Your task to perform on an android device: Add "macbook pro 15 inch" to the cart on target.com, then select checkout. Image 0: 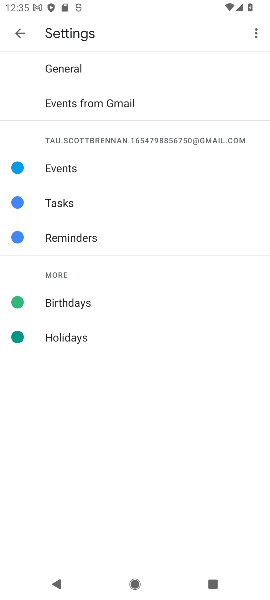
Step 0: press home button
Your task to perform on an android device: Add "macbook pro 15 inch" to the cart on target.com, then select checkout. Image 1: 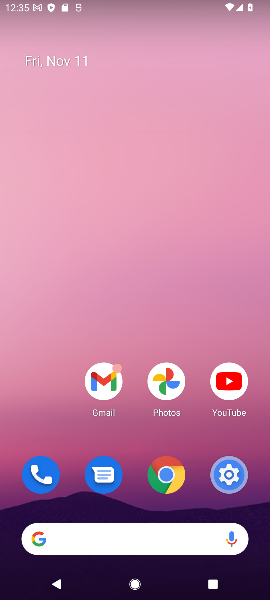
Step 1: drag from (130, 428) to (109, 1)
Your task to perform on an android device: Add "macbook pro 15 inch" to the cart on target.com, then select checkout. Image 2: 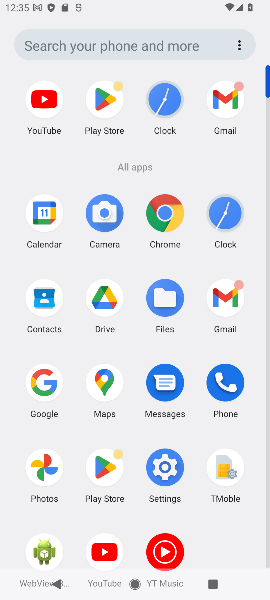
Step 2: click (170, 213)
Your task to perform on an android device: Add "macbook pro 15 inch" to the cart on target.com, then select checkout. Image 3: 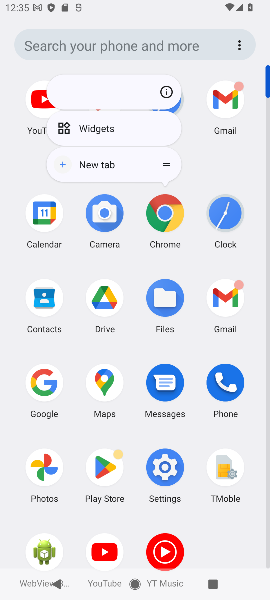
Step 3: click (165, 208)
Your task to perform on an android device: Add "macbook pro 15 inch" to the cart on target.com, then select checkout. Image 4: 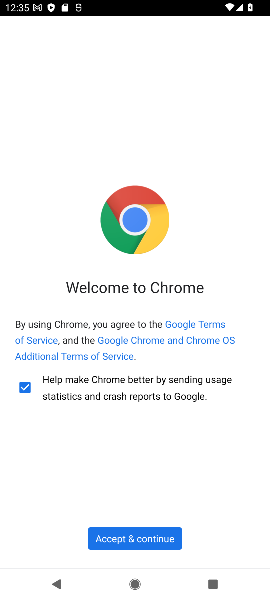
Step 4: click (150, 532)
Your task to perform on an android device: Add "macbook pro 15 inch" to the cart on target.com, then select checkout. Image 5: 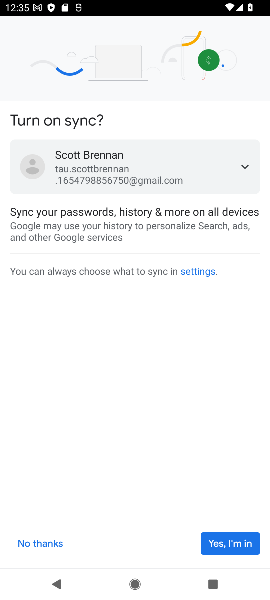
Step 5: click (244, 543)
Your task to perform on an android device: Add "macbook pro 15 inch" to the cart on target.com, then select checkout. Image 6: 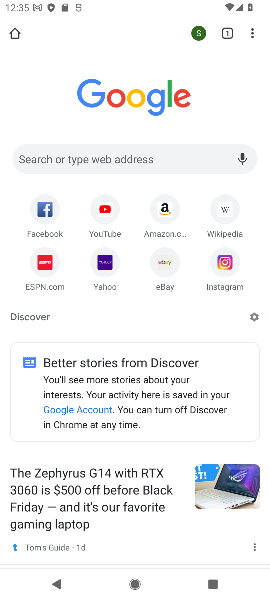
Step 6: click (109, 166)
Your task to perform on an android device: Add "macbook pro 15 inch" to the cart on target.com, then select checkout. Image 7: 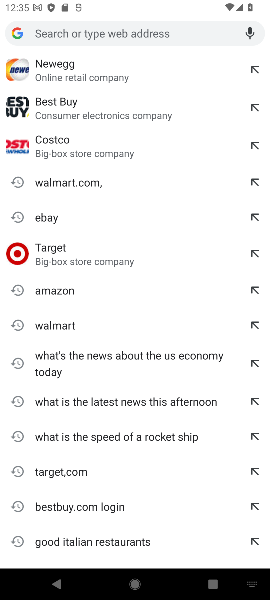
Step 7: type "target.com"
Your task to perform on an android device: Add "macbook pro 15 inch" to the cart on target.com, then select checkout. Image 8: 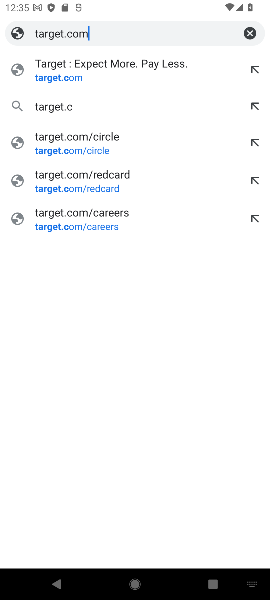
Step 8: press enter
Your task to perform on an android device: Add "macbook pro 15 inch" to the cart on target.com, then select checkout. Image 9: 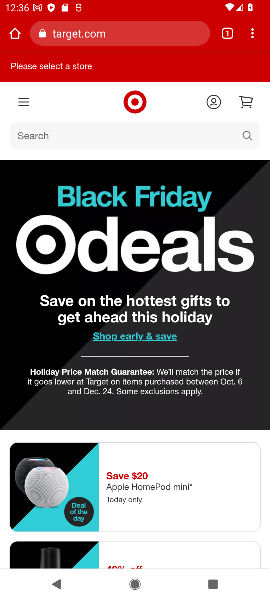
Step 9: click (64, 132)
Your task to perform on an android device: Add "macbook pro 15 inch" to the cart on target.com, then select checkout. Image 10: 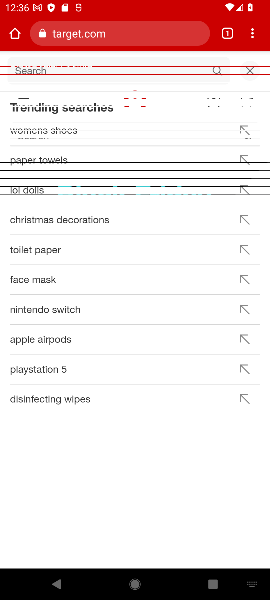
Step 10: type "macbook pro 15 inch"
Your task to perform on an android device: Add "macbook pro 15 inch" to the cart on target.com, then select checkout. Image 11: 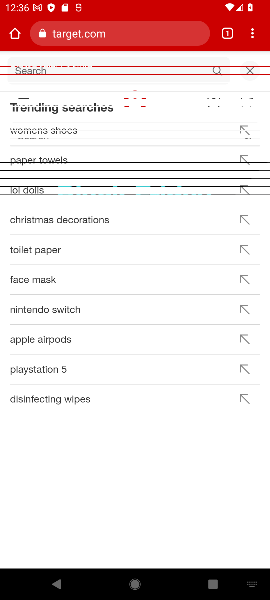
Step 11: press enter
Your task to perform on an android device: Add "macbook pro 15 inch" to the cart on target.com, then select checkout. Image 12: 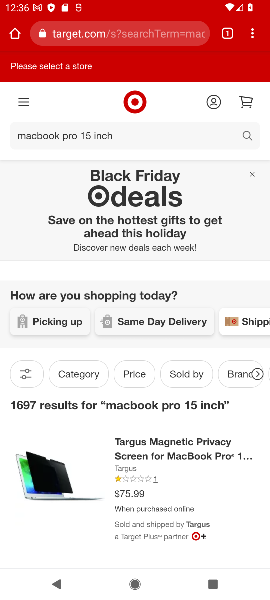
Step 12: drag from (135, 397) to (92, 195)
Your task to perform on an android device: Add "macbook pro 15 inch" to the cart on target.com, then select checkout. Image 13: 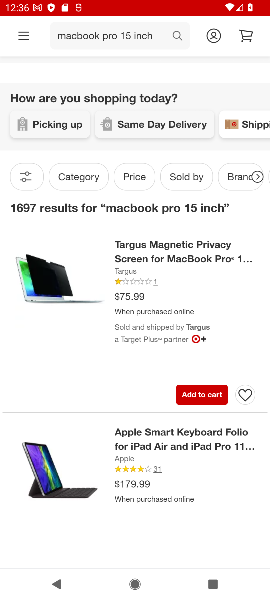
Step 13: click (203, 393)
Your task to perform on an android device: Add "macbook pro 15 inch" to the cart on target.com, then select checkout. Image 14: 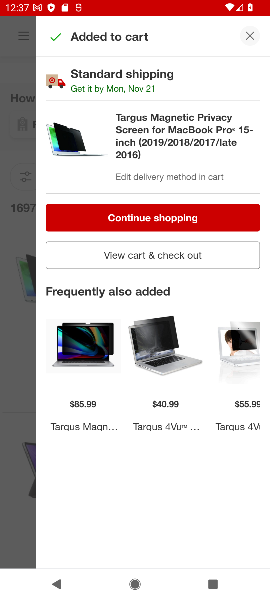
Step 14: click (163, 256)
Your task to perform on an android device: Add "macbook pro 15 inch" to the cart on target.com, then select checkout. Image 15: 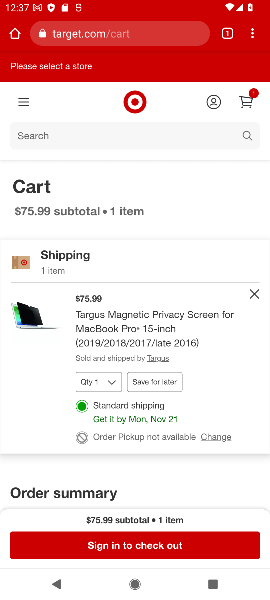
Step 15: task complete